Your task to perform on an android device: Search for the new Nintendo switch on Best Buy Image 0: 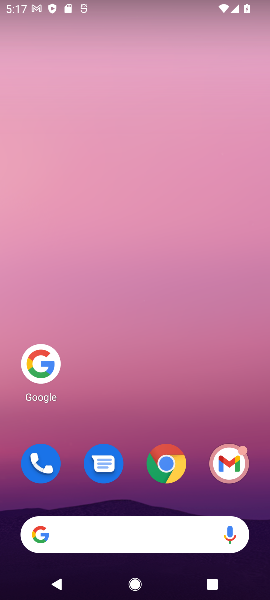
Step 0: click (53, 370)
Your task to perform on an android device: Search for the new Nintendo switch on Best Buy Image 1: 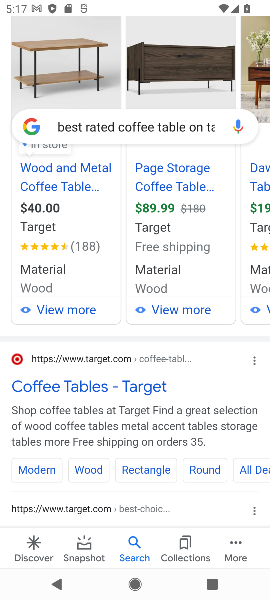
Step 1: click (121, 121)
Your task to perform on an android device: Search for the new Nintendo switch on Best Buy Image 2: 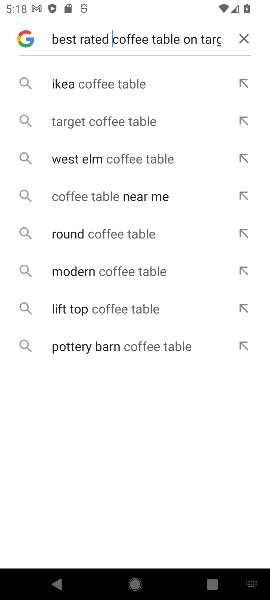
Step 2: click (246, 37)
Your task to perform on an android device: Search for the new Nintendo switch on Best Buy Image 3: 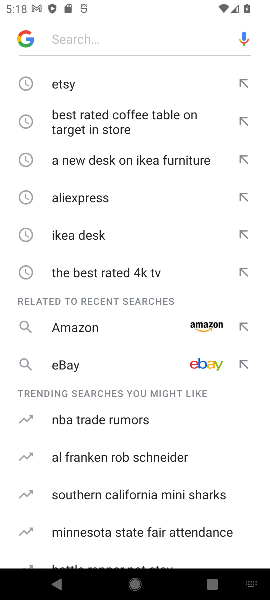
Step 3: click (142, 35)
Your task to perform on an android device: Search for the new Nintendo switch on Best Buy Image 4: 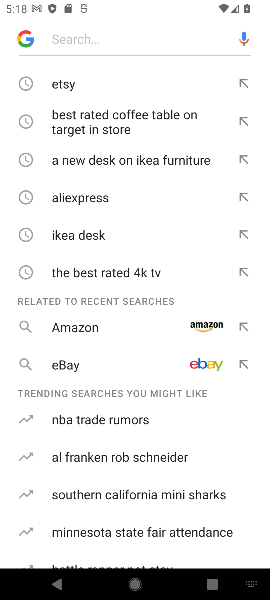
Step 4: type "the new Nintendo switch on Best Buy "
Your task to perform on an android device: Search for the new Nintendo switch on Best Buy Image 5: 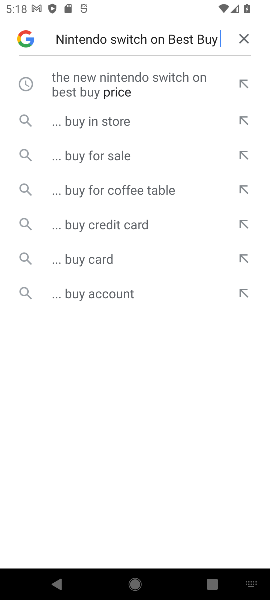
Step 5: click (101, 79)
Your task to perform on an android device: Search for the new Nintendo switch on Best Buy Image 6: 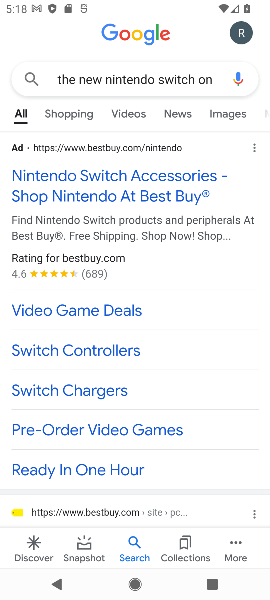
Step 6: click (117, 163)
Your task to perform on an android device: Search for the new Nintendo switch on Best Buy Image 7: 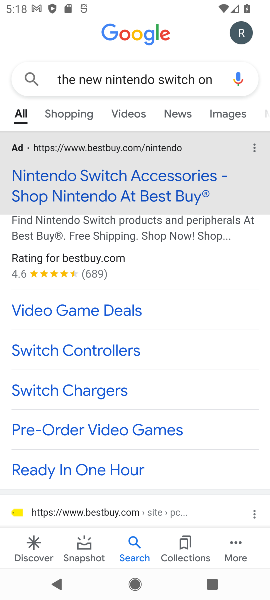
Step 7: click (116, 181)
Your task to perform on an android device: Search for the new Nintendo switch on Best Buy Image 8: 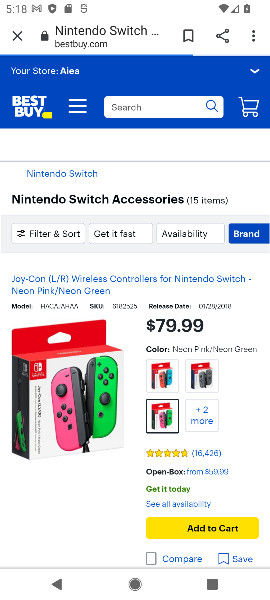
Step 8: task complete